Your task to perform on an android device: What's the weather like in Singapore? Image 0: 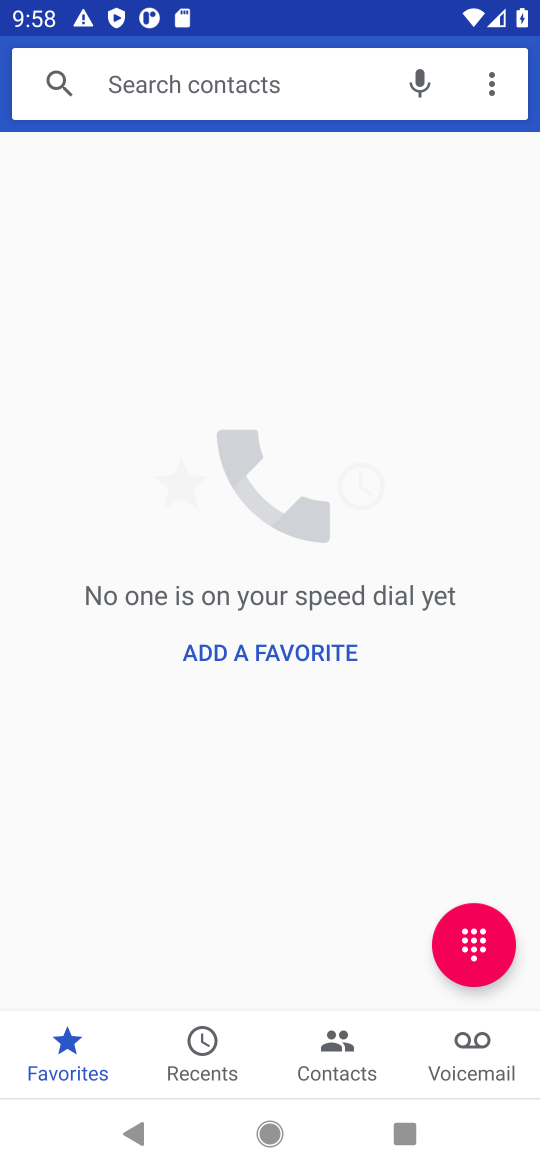
Step 0: press home button
Your task to perform on an android device: What's the weather like in Singapore? Image 1: 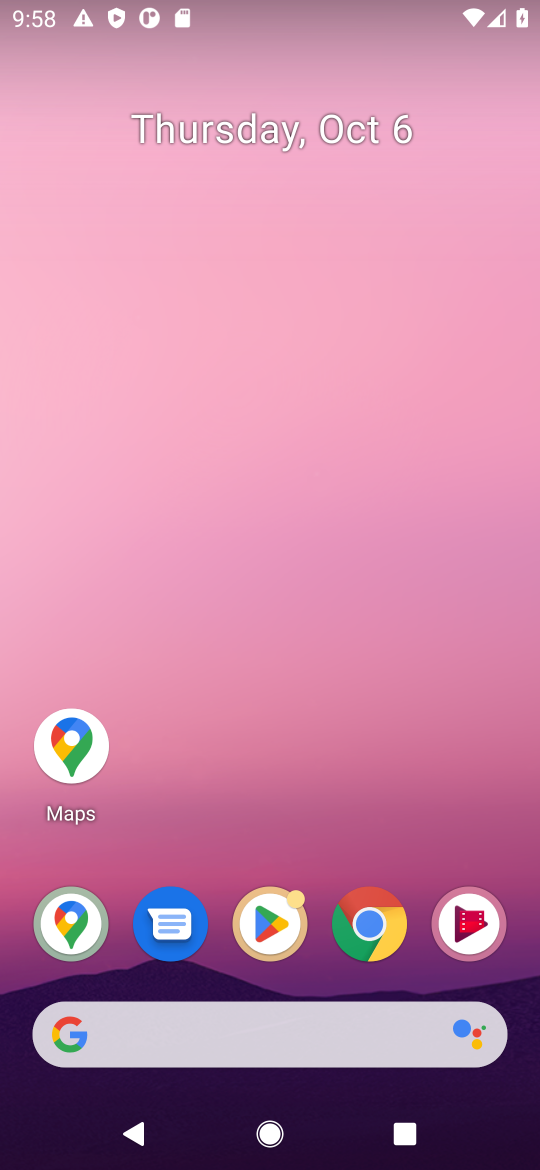
Step 1: click (375, 928)
Your task to perform on an android device: What's the weather like in Singapore? Image 2: 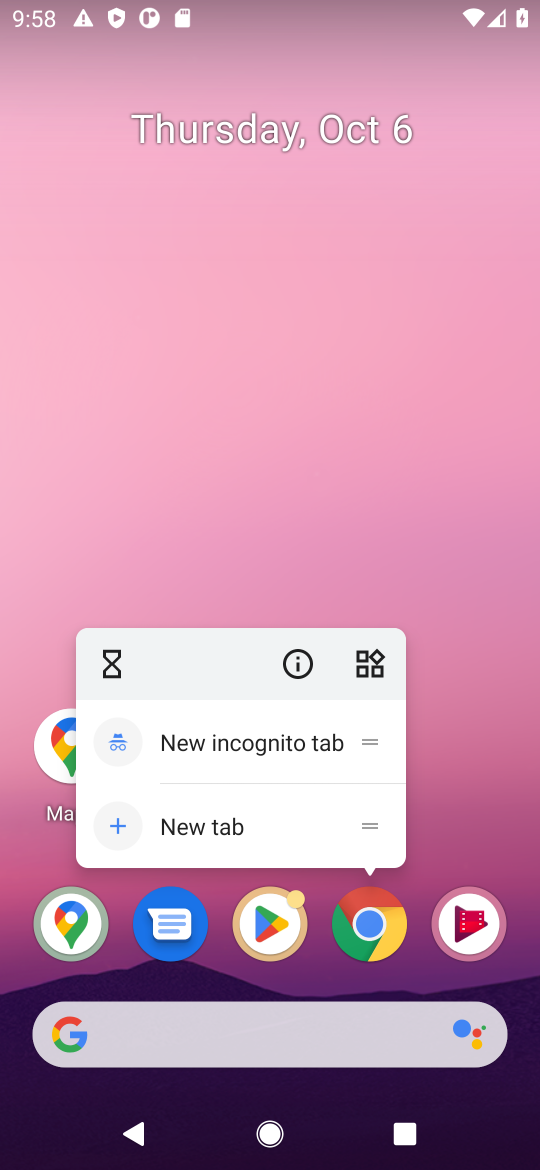
Step 2: click (370, 927)
Your task to perform on an android device: What's the weather like in Singapore? Image 3: 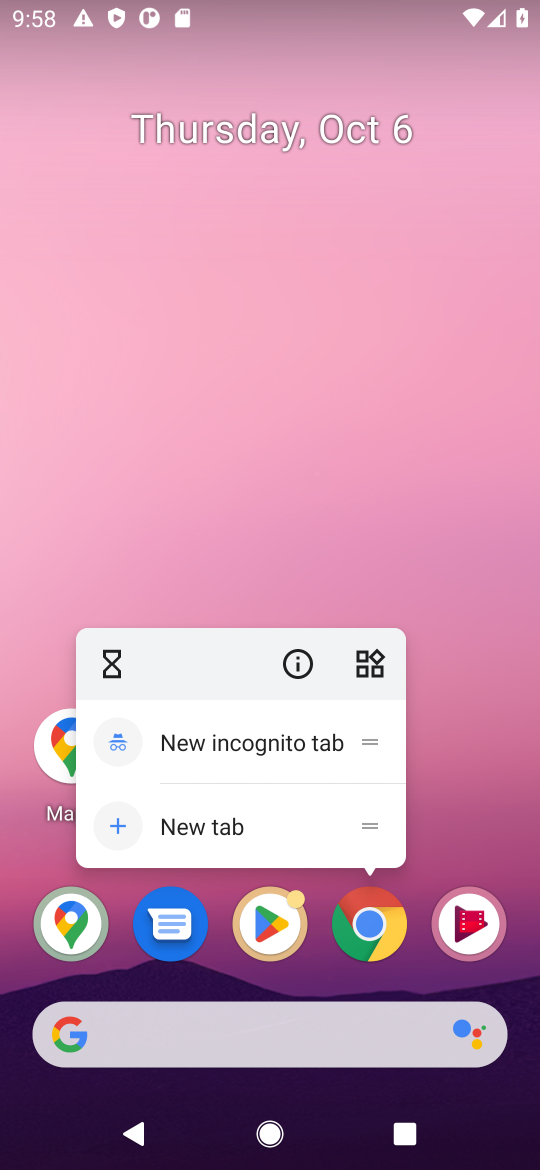
Step 3: click (365, 922)
Your task to perform on an android device: What's the weather like in Singapore? Image 4: 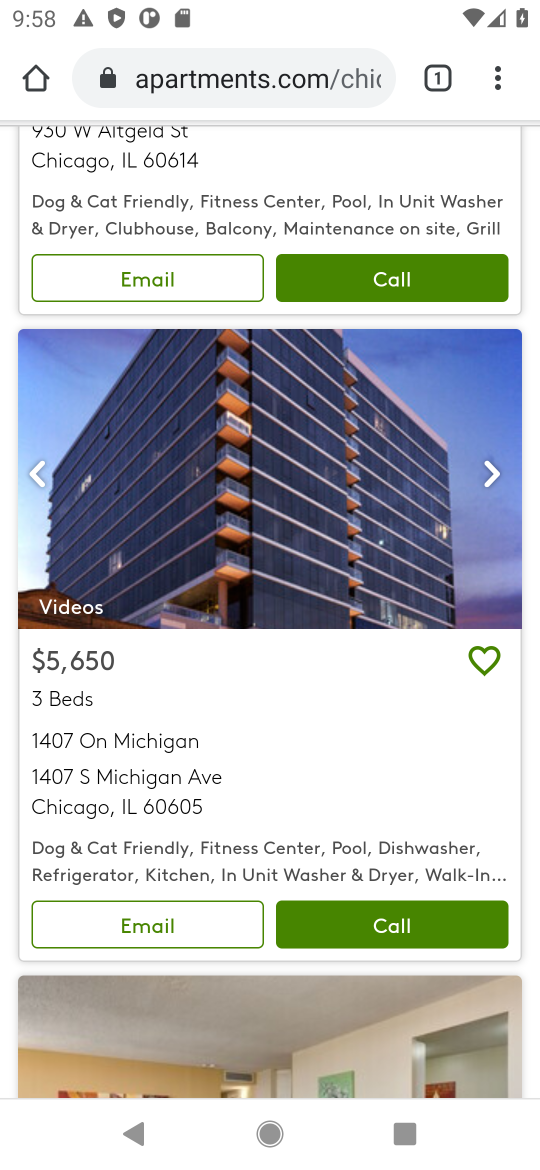
Step 4: click (351, 70)
Your task to perform on an android device: What's the weather like in Singapore? Image 5: 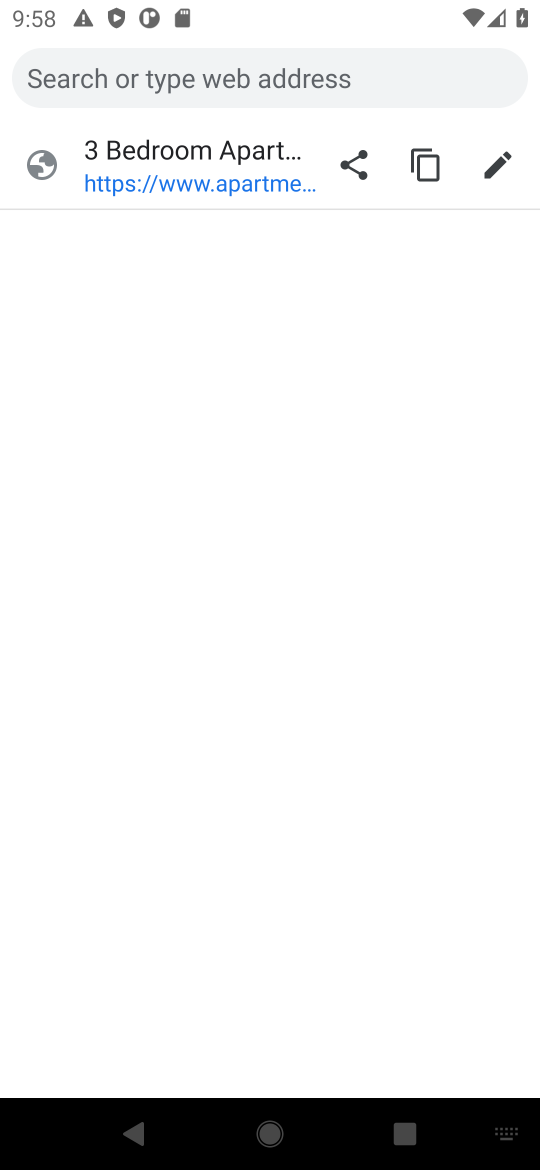
Step 5: type "weather like in Singapore"
Your task to perform on an android device: What's the weather like in Singapore? Image 6: 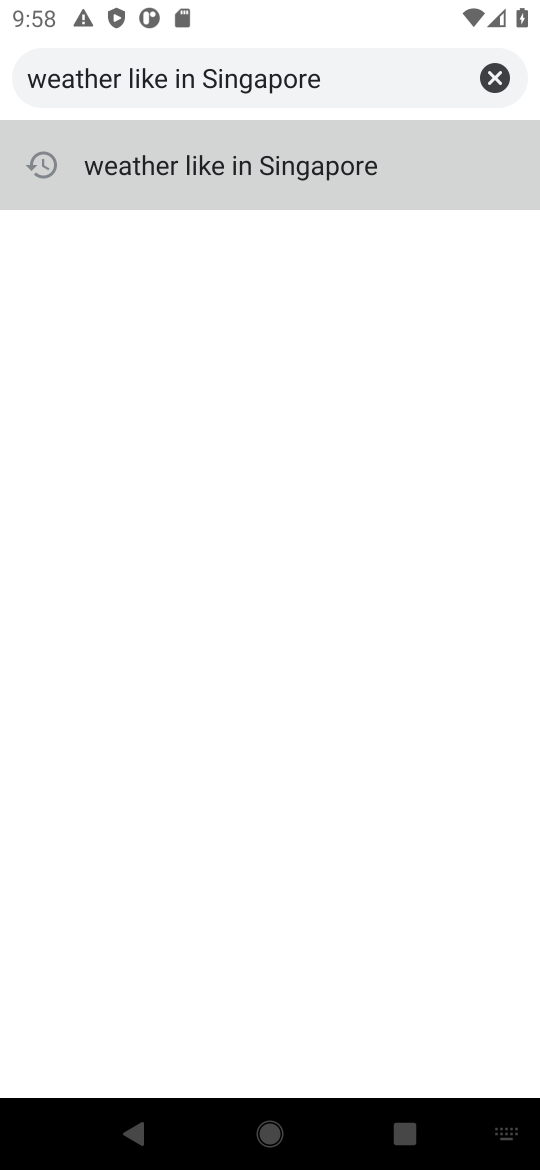
Step 6: click (346, 168)
Your task to perform on an android device: What's the weather like in Singapore? Image 7: 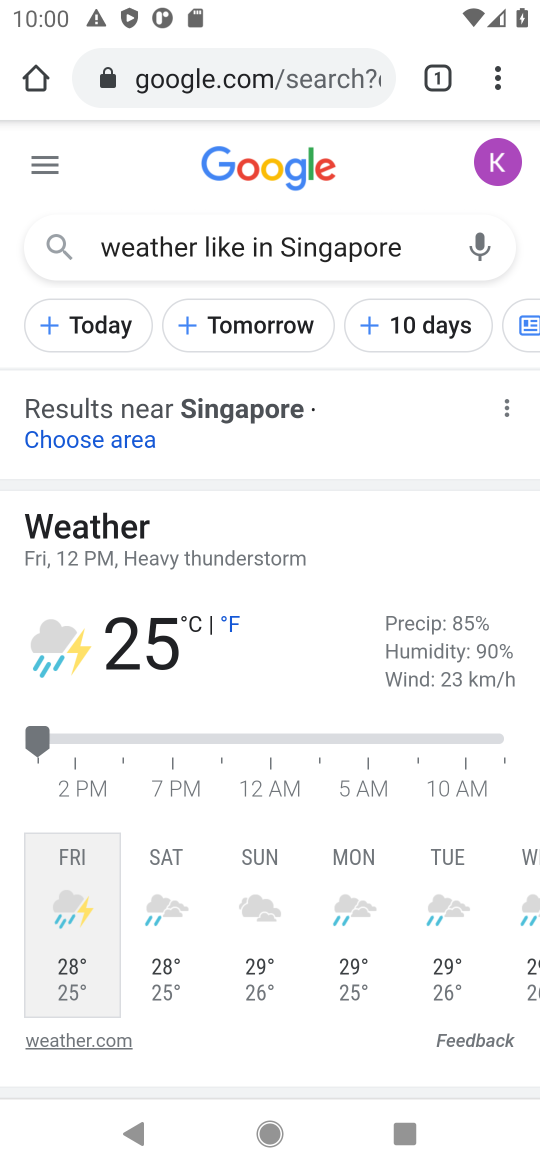
Step 7: task complete